Your task to perform on an android device: check storage Image 0: 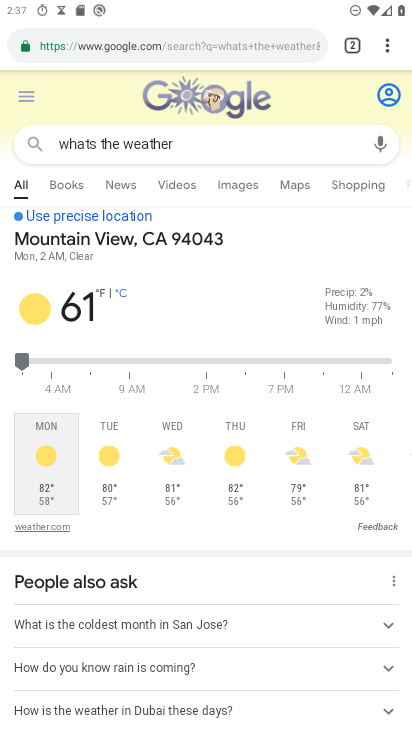
Step 0: press home button
Your task to perform on an android device: check storage Image 1: 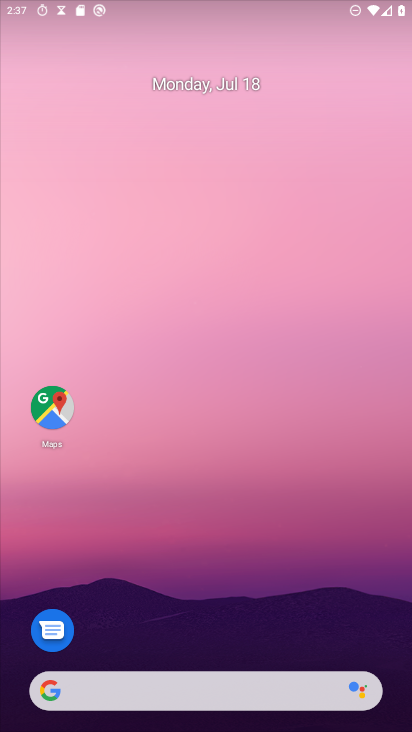
Step 1: drag from (274, 589) to (402, 2)
Your task to perform on an android device: check storage Image 2: 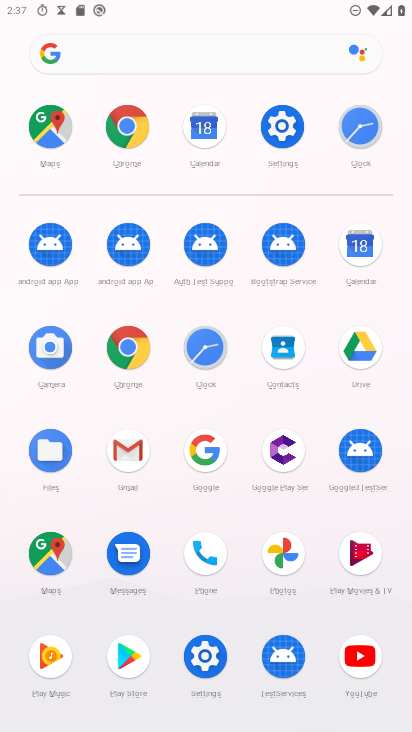
Step 2: click (283, 128)
Your task to perform on an android device: check storage Image 3: 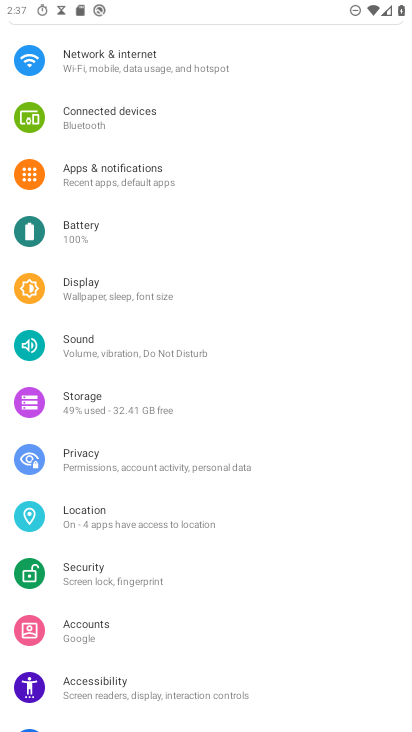
Step 3: click (129, 410)
Your task to perform on an android device: check storage Image 4: 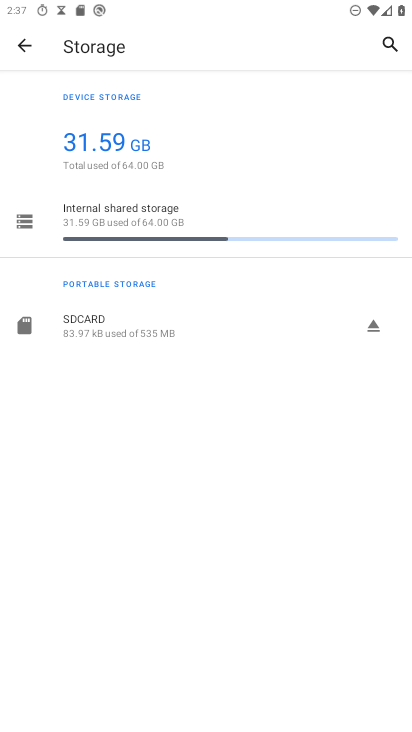
Step 4: task complete